Your task to perform on an android device: make emails show in primary in the gmail app Image 0: 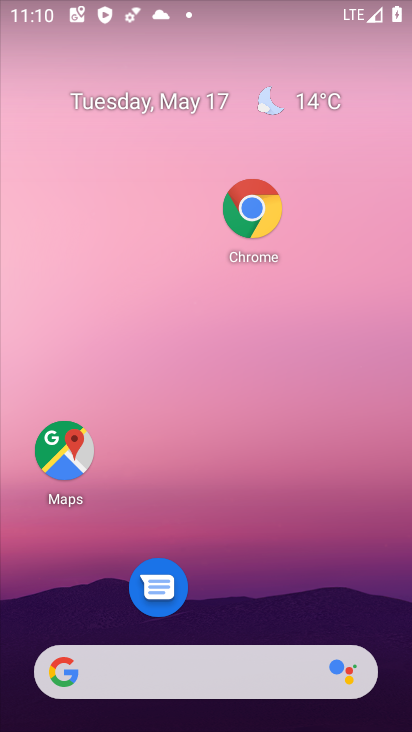
Step 0: drag from (281, 563) to (260, 61)
Your task to perform on an android device: make emails show in primary in the gmail app Image 1: 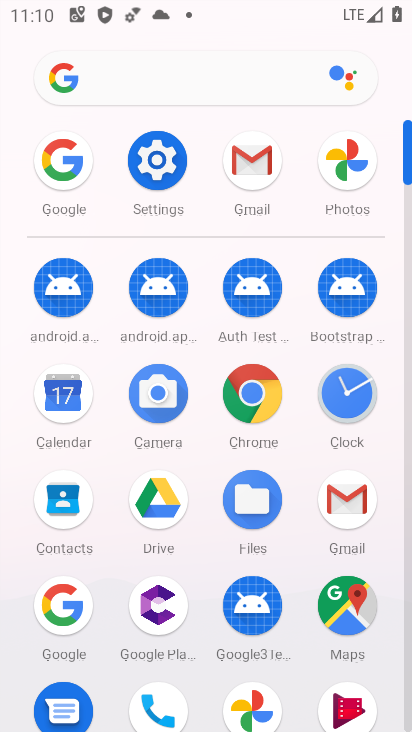
Step 1: click (345, 480)
Your task to perform on an android device: make emails show in primary in the gmail app Image 2: 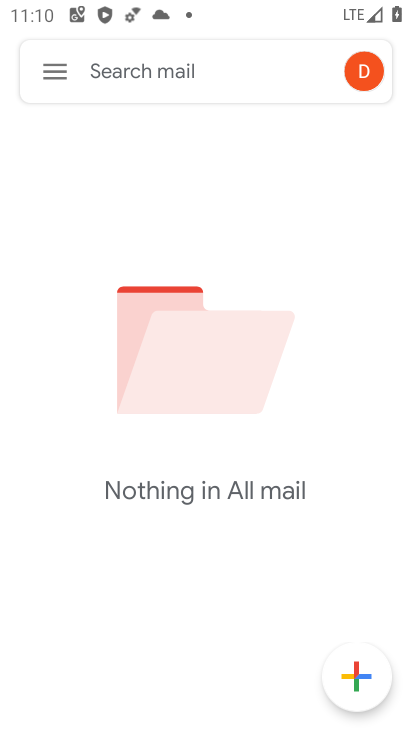
Step 2: click (42, 82)
Your task to perform on an android device: make emails show in primary in the gmail app Image 3: 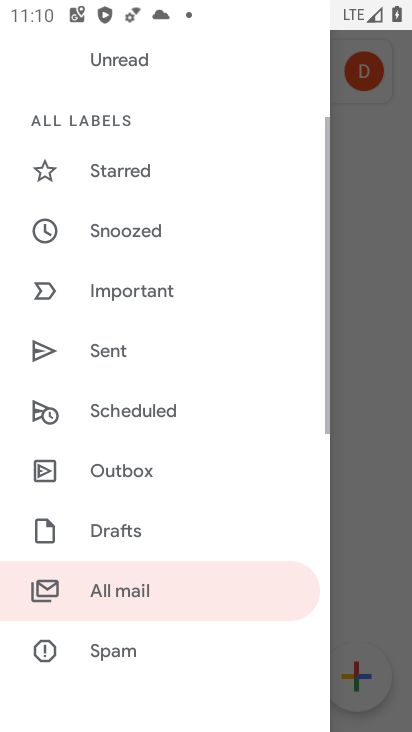
Step 3: drag from (143, 680) to (151, 128)
Your task to perform on an android device: make emails show in primary in the gmail app Image 4: 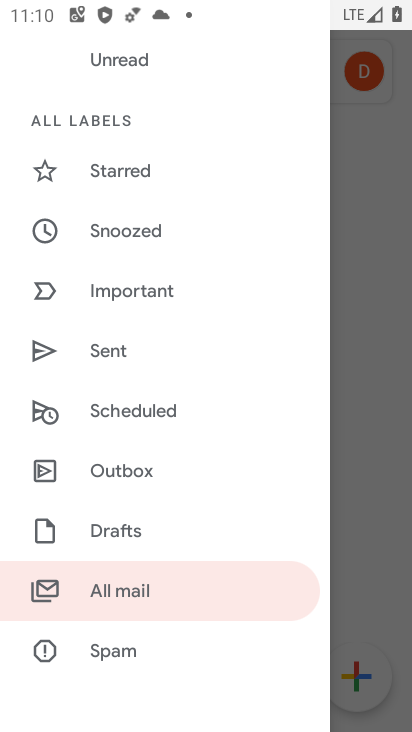
Step 4: drag from (174, 546) to (195, 137)
Your task to perform on an android device: make emails show in primary in the gmail app Image 5: 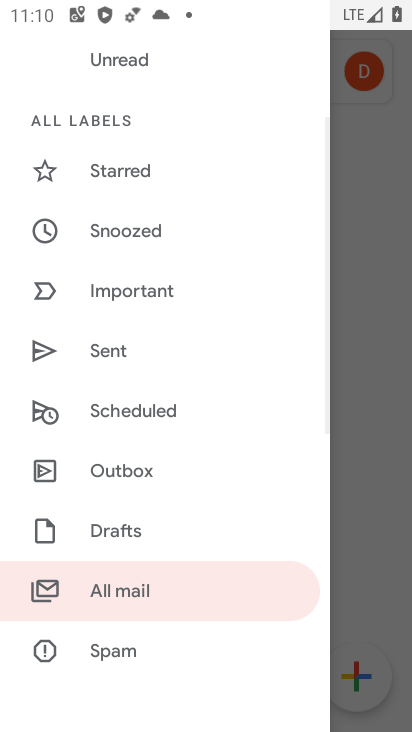
Step 5: drag from (200, 530) to (168, 72)
Your task to perform on an android device: make emails show in primary in the gmail app Image 6: 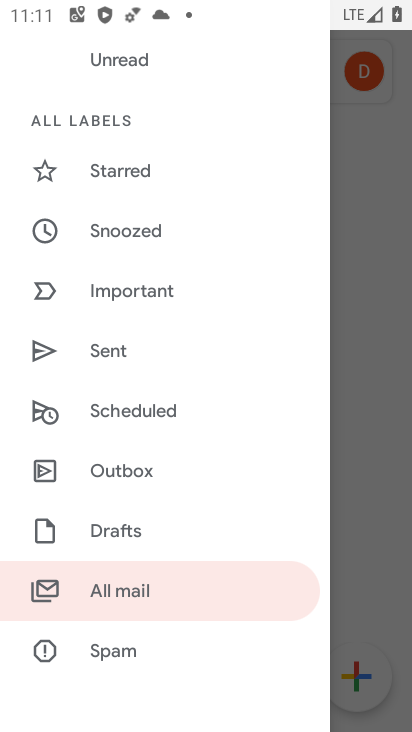
Step 6: drag from (160, 557) to (185, 222)
Your task to perform on an android device: make emails show in primary in the gmail app Image 7: 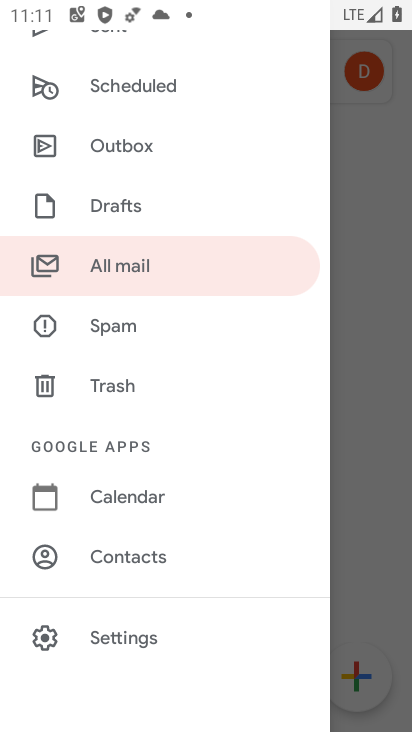
Step 7: click (135, 624)
Your task to perform on an android device: make emails show in primary in the gmail app Image 8: 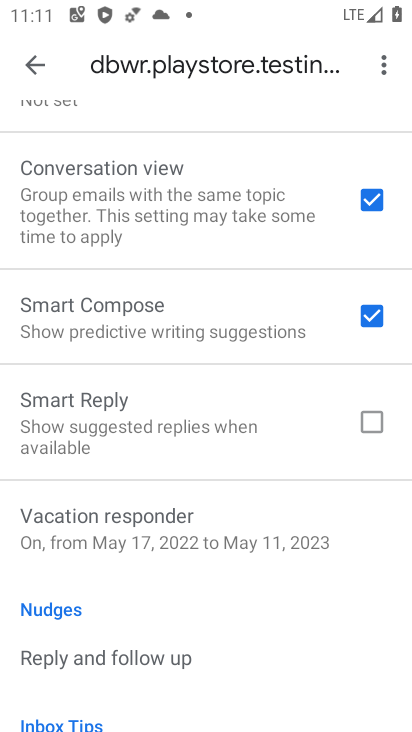
Step 8: drag from (243, 267) to (230, 664)
Your task to perform on an android device: make emails show in primary in the gmail app Image 9: 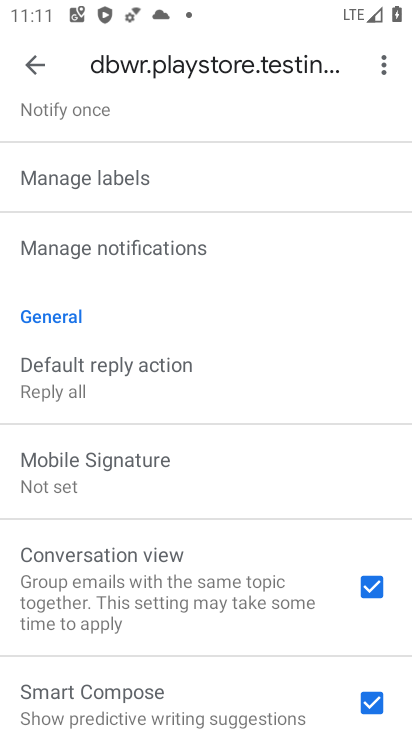
Step 9: drag from (227, 220) to (281, 713)
Your task to perform on an android device: make emails show in primary in the gmail app Image 10: 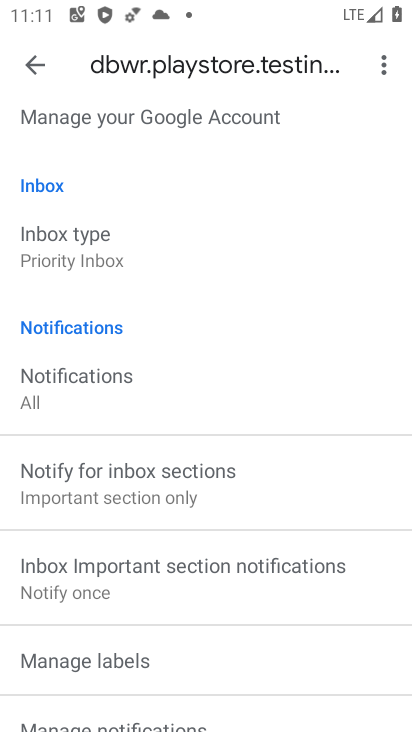
Step 10: click (74, 242)
Your task to perform on an android device: make emails show in primary in the gmail app Image 11: 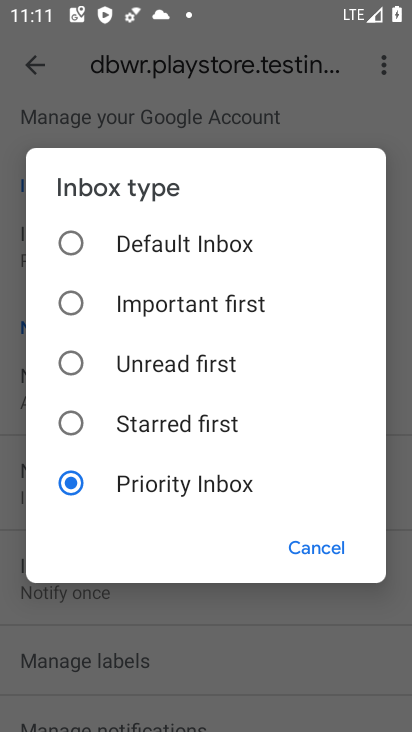
Step 11: click (76, 236)
Your task to perform on an android device: make emails show in primary in the gmail app Image 12: 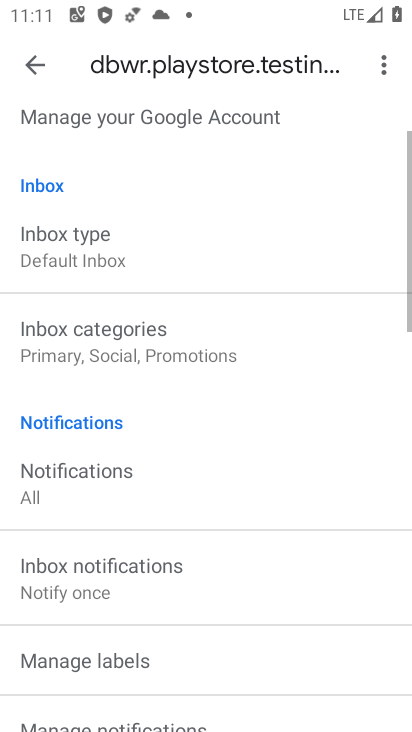
Step 12: click (98, 350)
Your task to perform on an android device: make emails show in primary in the gmail app Image 13: 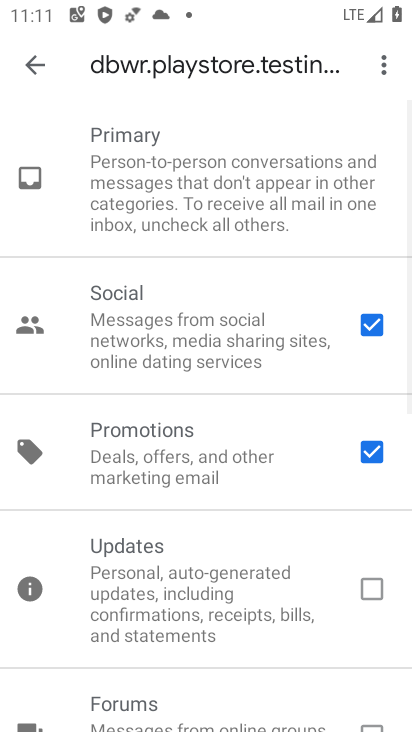
Step 13: click (368, 331)
Your task to perform on an android device: make emails show in primary in the gmail app Image 14: 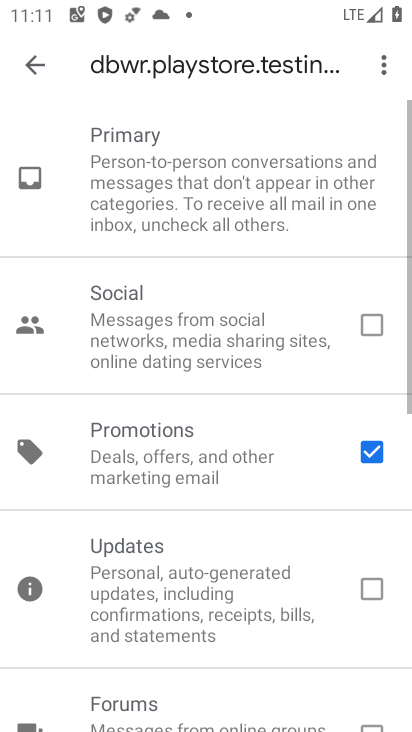
Step 14: click (377, 450)
Your task to perform on an android device: make emails show in primary in the gmail app Image 15: 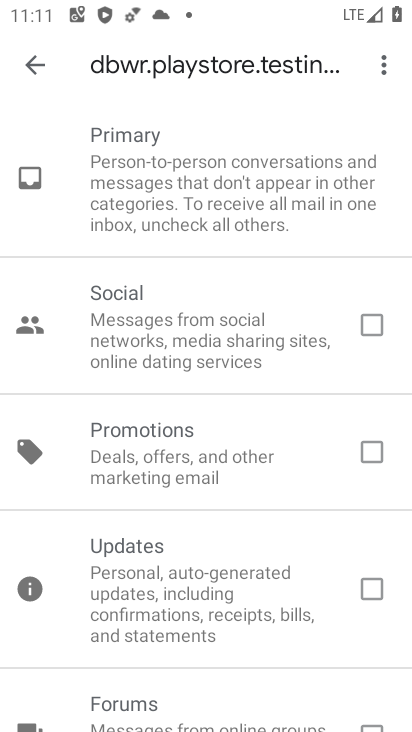
Step 15: task complete